Your task to perform on an android device: turn pop-ups off in chrome Image 0: 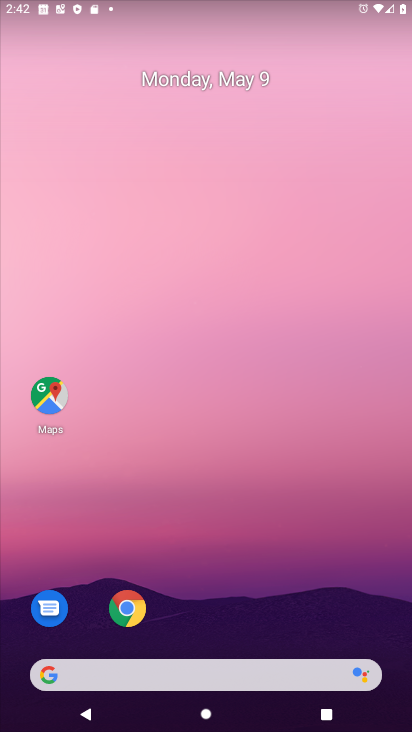
Step 0: click (121, 611)
Your task to perform on an android device: turn pop-ups off in chrome Image 1: 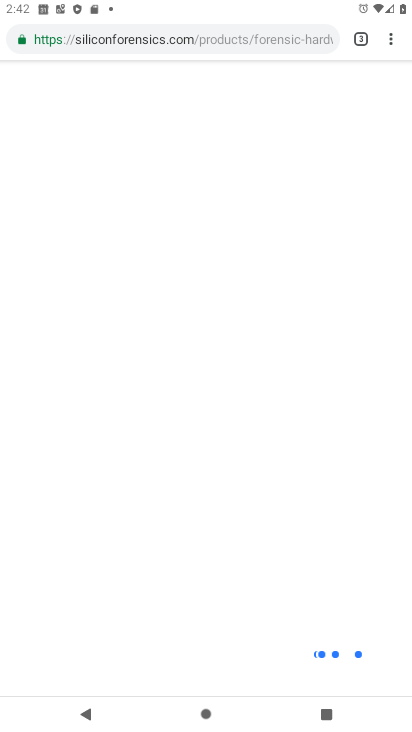
Step 1: click (397, 42)
Your task to perform on an android device: turn pop-ups off in chrome Image 2: 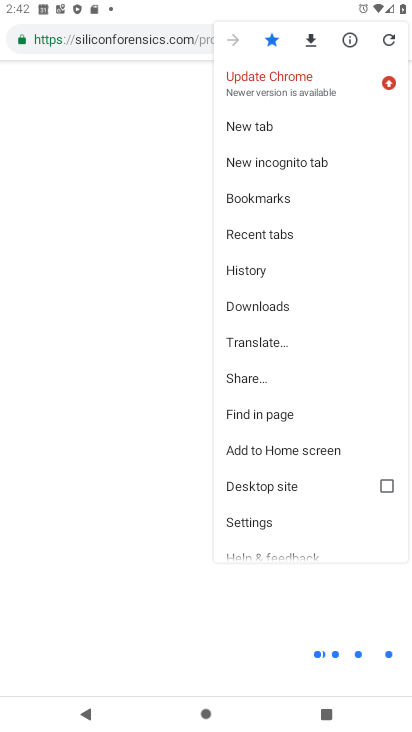
Step 2: click (281, 526)
Your task to perform on an android device: turn pop-ups off in chrome Image 3: 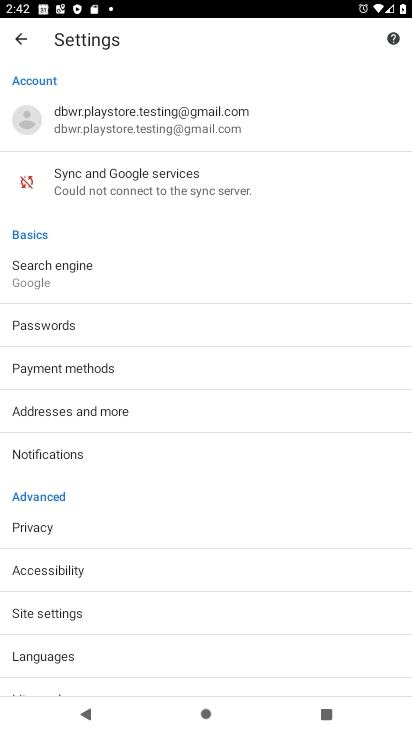
Step 3: drag from (155, 632) to (179, 401)
Your task to perform on an android device: turn pop-ups off in chrome Image 4: 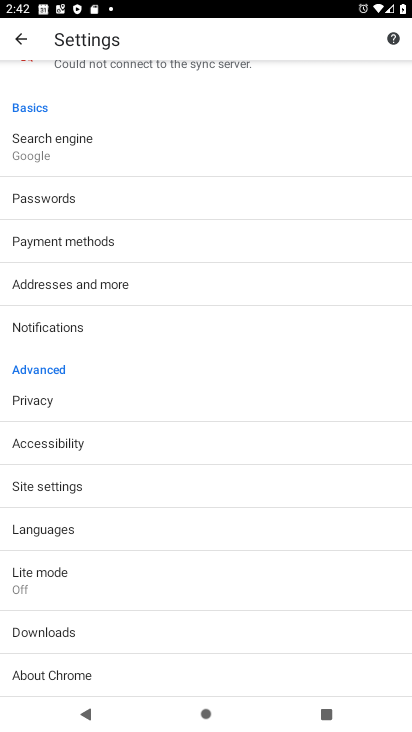
Step 4: drag from (71, 640) to (124, 365)
Your task to perform on an android device: turn pop-ups off in chrome Image 5: 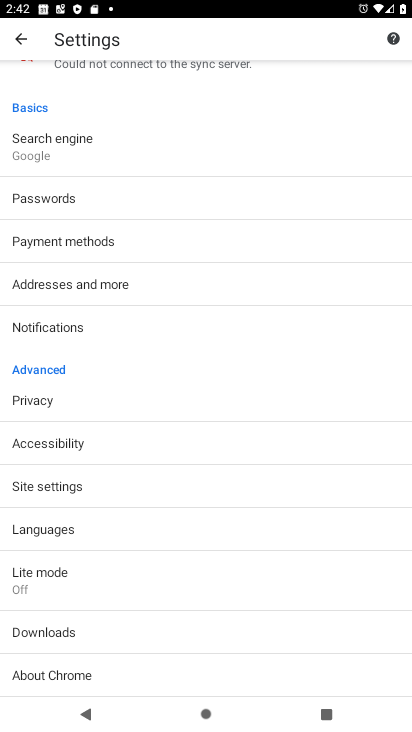
Step 5: click (135, 488)
Your task to perform on an android device: turn pop-ups off in chrome Image 6: 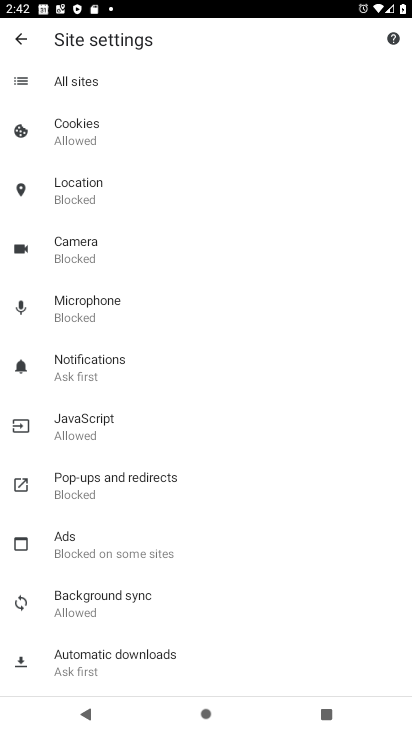
Step 6: click (217, 503)
Your task to perform on an android device: turn pop-ups off in chrome Image 7: 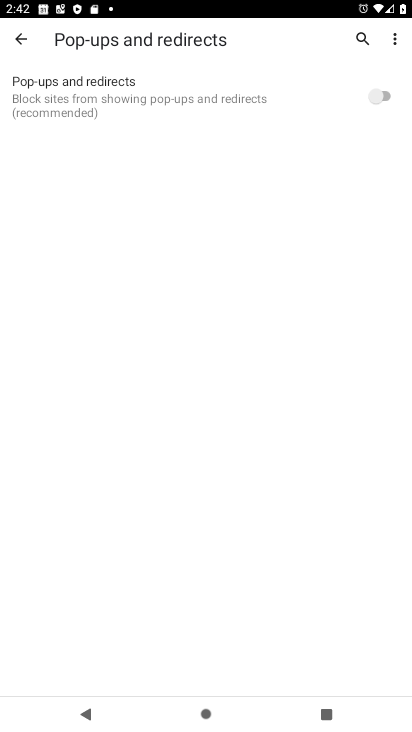
Step 7: task complete